Your task to perform on an android device: Open Wikipedia Image 0: 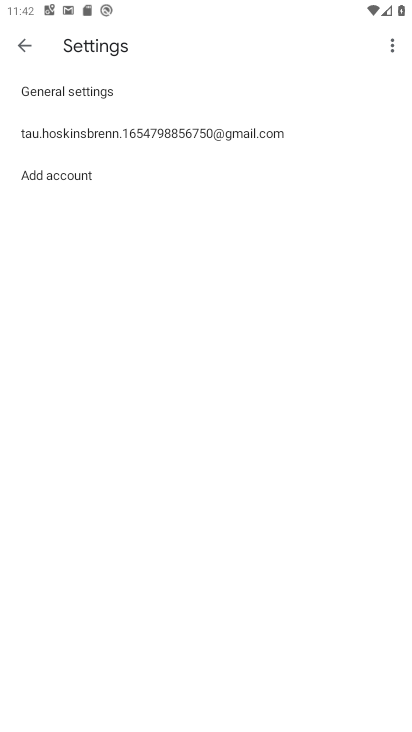
Step 0: press home button
Your task to perform on an android device: Open Wikipedia Image 1: 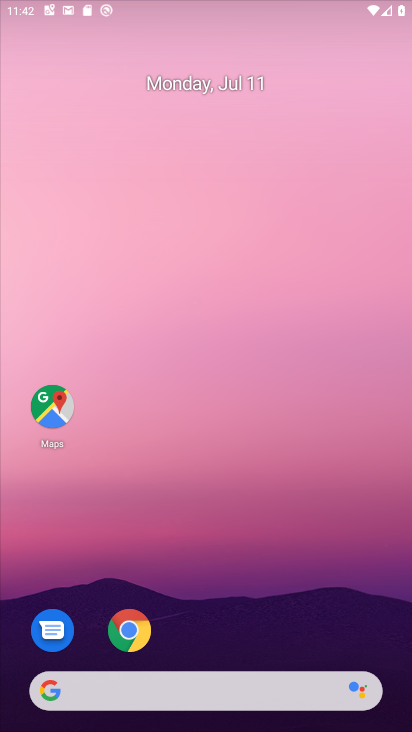
Step 1: drag from (286, 650) to (280, 165)
Your task to perform on an android device: Open Wikipedia Image 2: 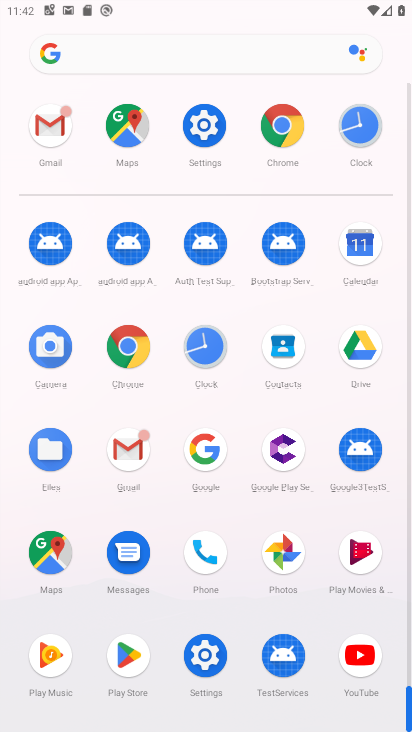
Step 2: click (203, 465)
Your task to perform on an android device: Open Wikipedia Image 3: 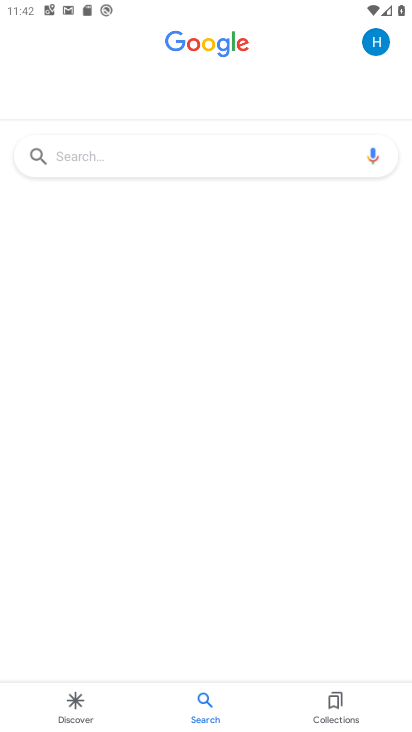
Step 3: click (232, 171)
Your task to perform on an android device: Open Wikipedia Image 4: 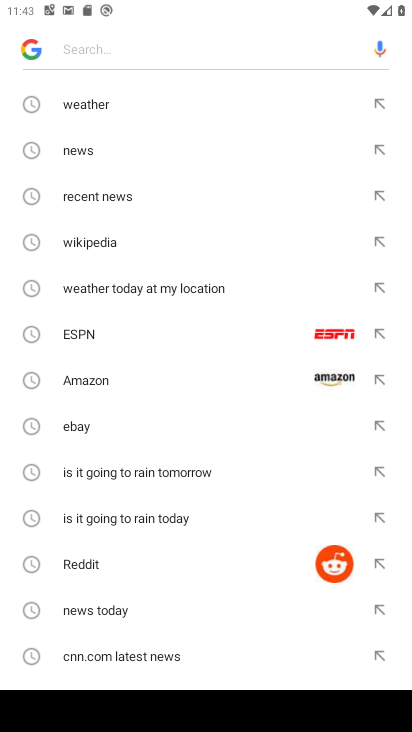
Step 4: click (143, 244)
Your task to perform on an android device: Open Wikipedia Image 5: 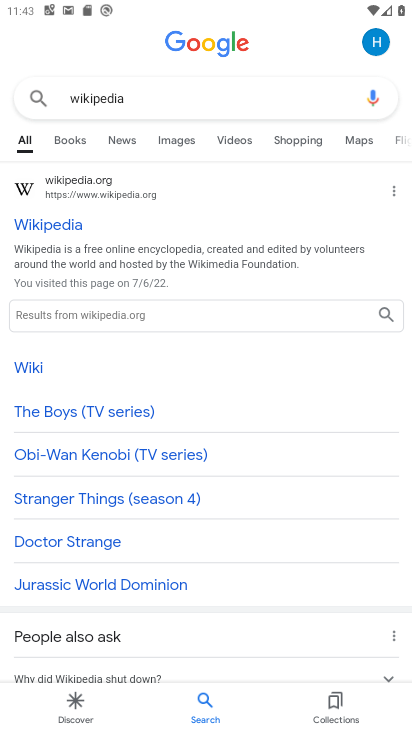
Step 5: click (60, 230)
Your task to perform on an android device: Open Wikipedia Image 6: 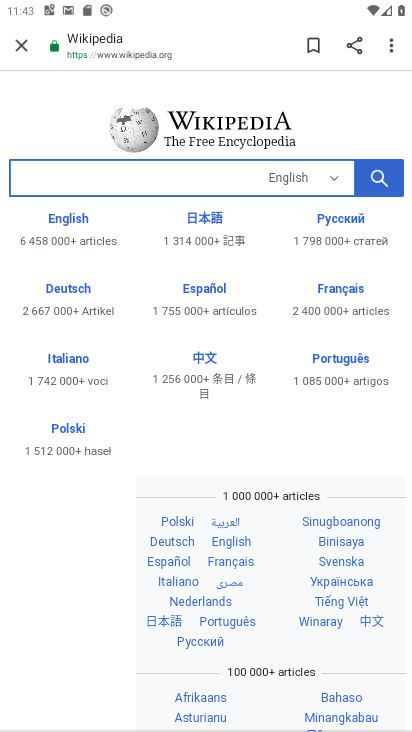
Step 6: task complete